Your task to perform on an android device: toggle pop-ups in chrome Image 0: 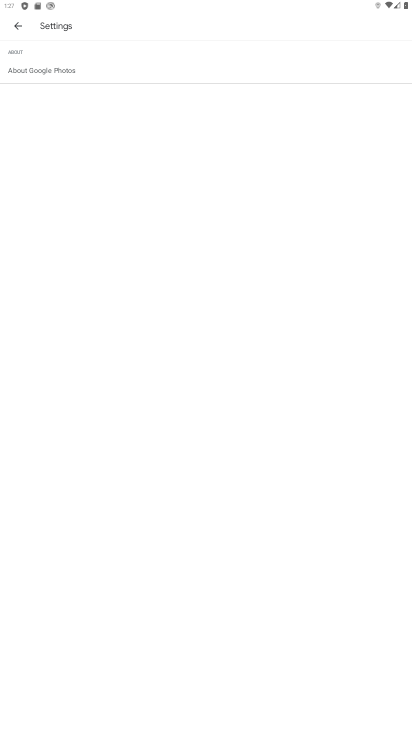
Step 0: press home button
Your task to perform on an android device: toggle pop-ups in chrome Image 1: 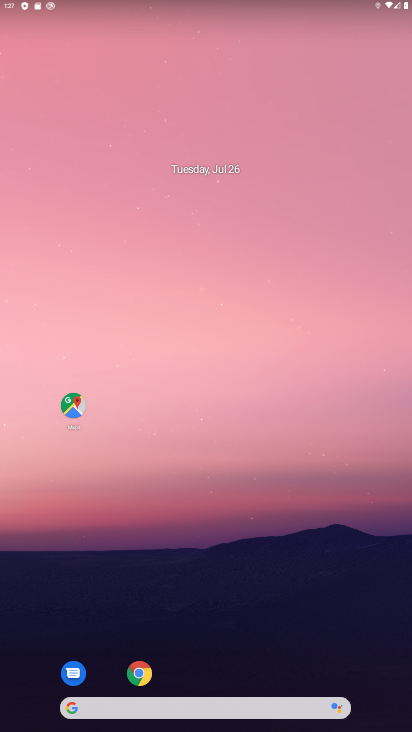
Step 1: drag from (234, 666) to (178, 84)
Your task to perform on an android device: toggle pop-ups in chrome Image 2: 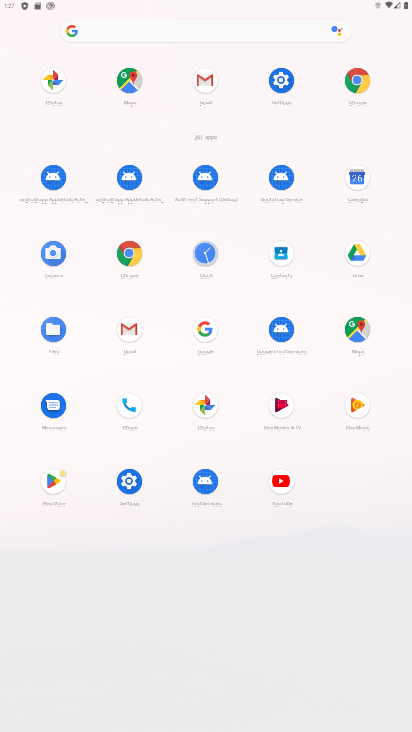
Step 2: click (359, 84)
Your task to perform on an android device: toggle pop-ups in chrome Image 3: 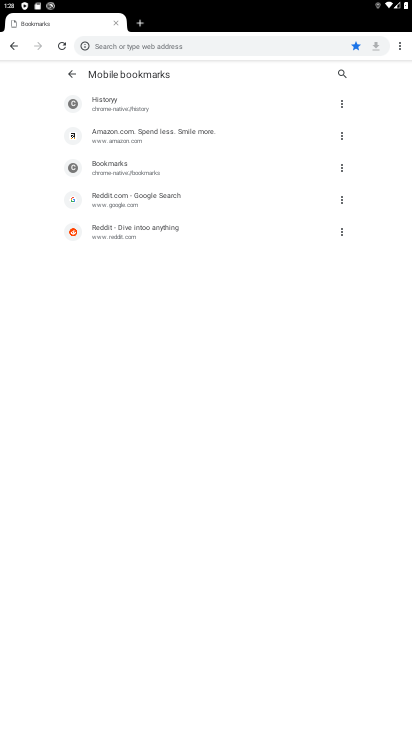
Step 3: click (399, 58)
Your task to perform on an android device: toggle pop-ups in chrome Image 4: 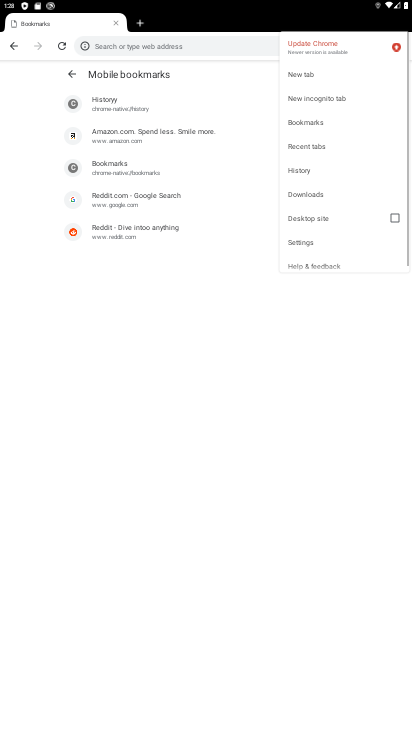
Step 4: click (373, 241)
Your task to perform on an android device: toggle pop-ups in chrome Image 5: 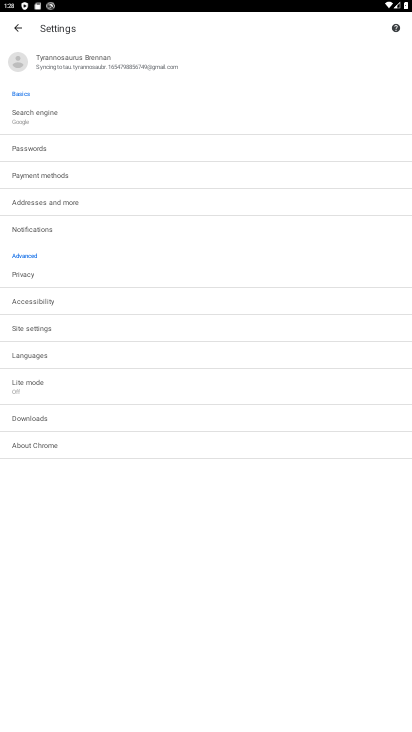
Step 5: click (119, 325)
Your task to perform on an android device: toggle pop-ups in chrome Image 6: 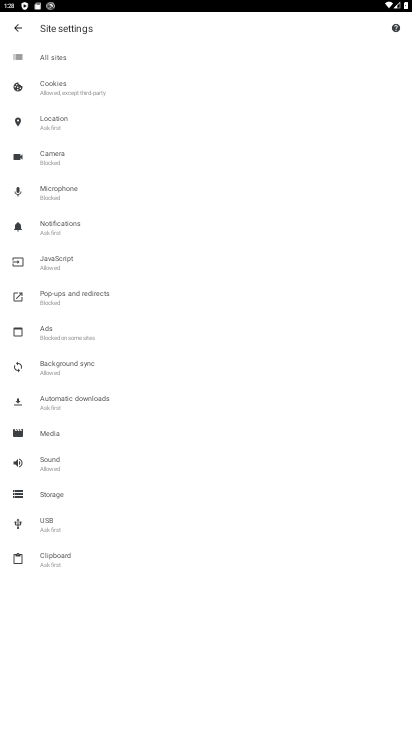
Step 6: click (100, 302)
Your task to perform on an android device: toggle pop-ups in chrome Image 7: 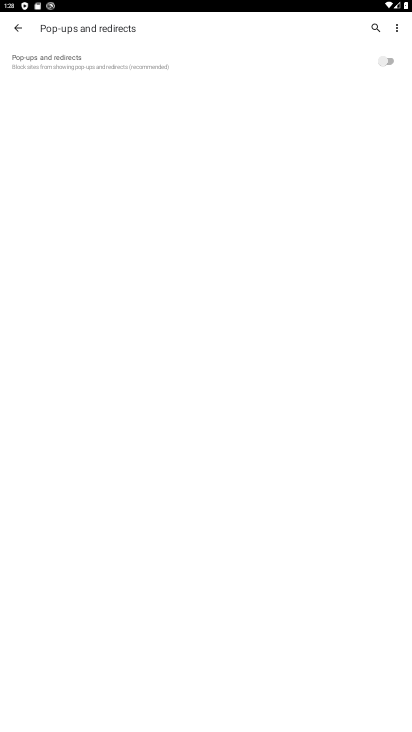
Step 7: click (392, 62)
Your task to perform on an android device: toggle pop-ups in chrome Image 8: 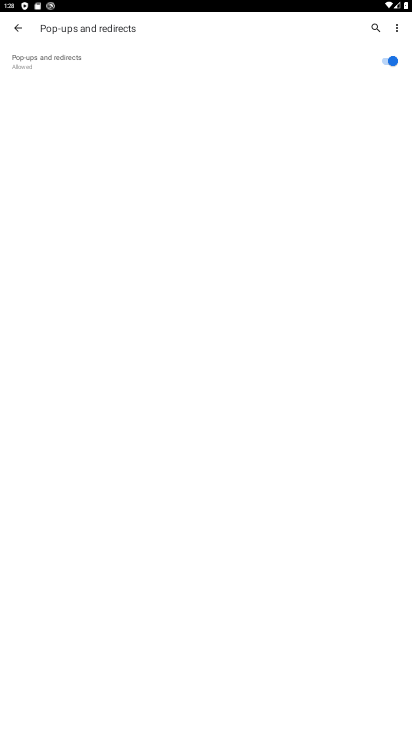
Step 8: task complete